Your task to perform on an android device: Go to privacy settings Image 0: 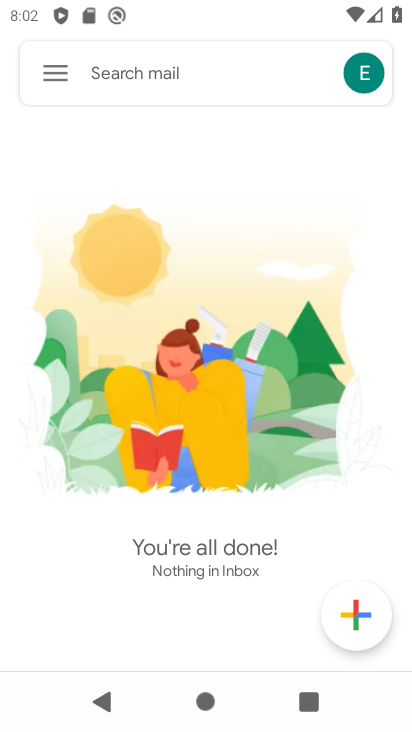
Step 0: press home button
Your task to perform on an android device: Go to privacy settings Image 1: 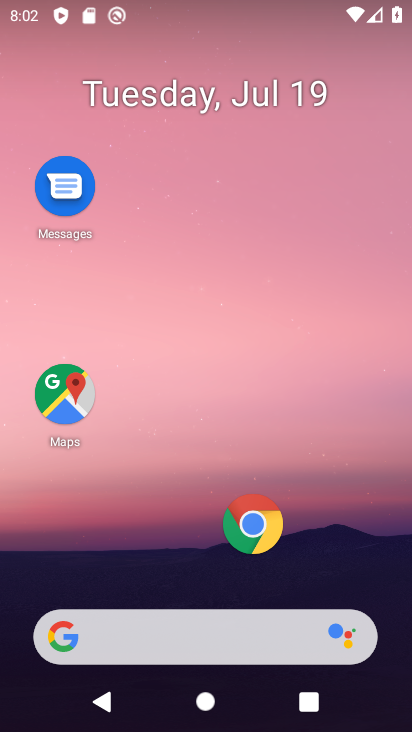
Step 1: drag from (241, 579) to (203, 163)
Your task to perform on an android device: Go to privacy settings Image 2: 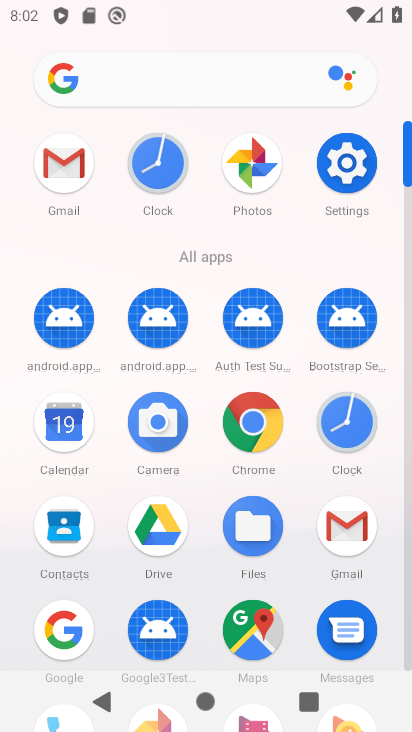
Step 2: click (344, 156)
Your task to perform on an android device: Go to privacy settings Image 3: 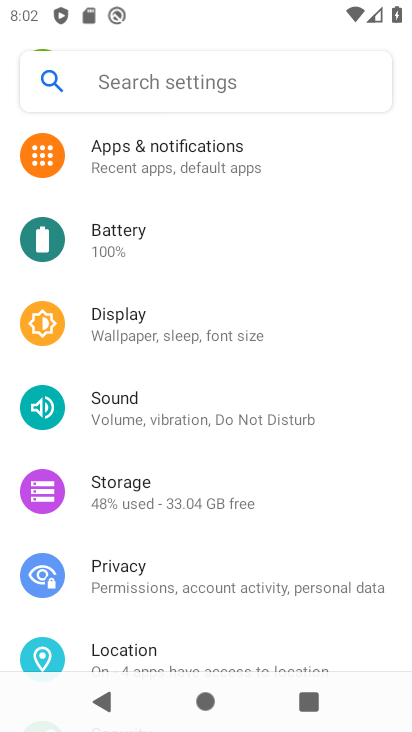
Step 3: click (136, 554)
Your task to perform on an android device: Go to privacy settings Image 4: 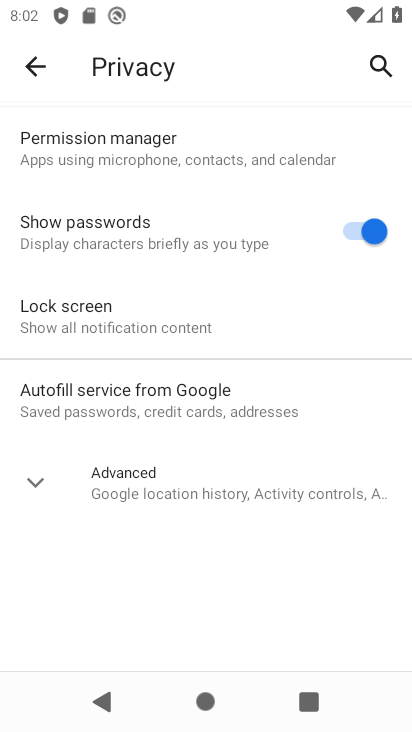
Step 4: click (126, 484)
Your task to perform on an android device: Go to privacy settings Image 5: 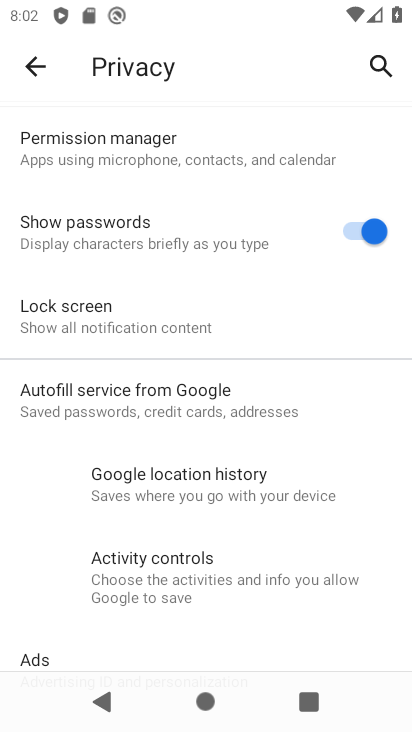
Step 5: task complete